Your task to perform on an android device: read, delete, or share a saved page in the chrome app Image 0: 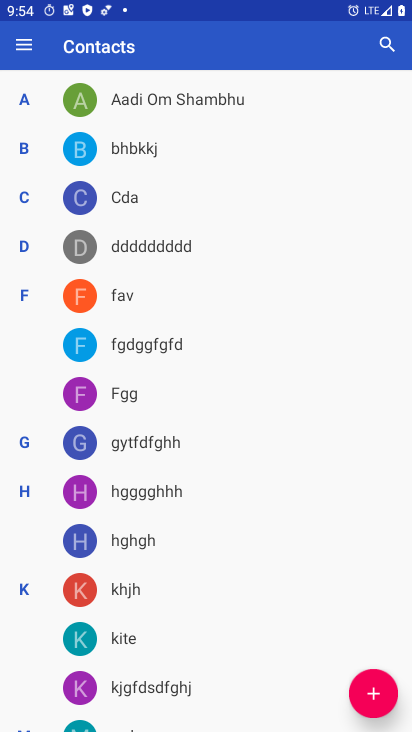
Step 0: press home button
Your task to perform on an android device: read, delete, or share a saved page in the chrome app Image 1: 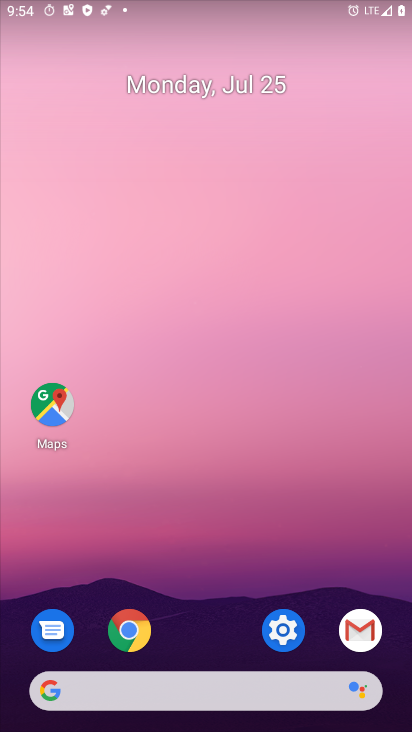
Step 1: click (138, 625)
Your task to perform on an android device: read, delete, or share a saved page in the chrome app Image 2: 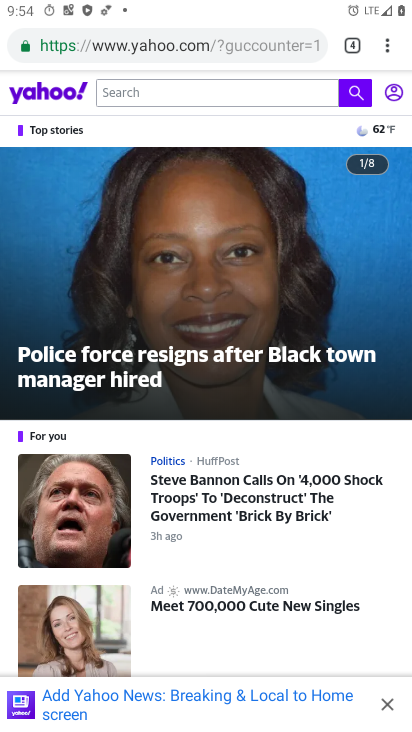
Step 2: click (382, 53)
Your task to perform on an android device: read, delete, or share a saved page in the chrome app Image 3: 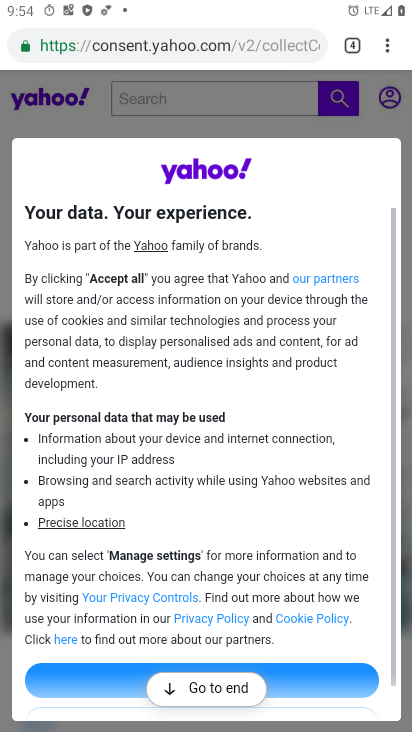
Step 3: click (387, 47)
Your task to perform on an android device: read, delete, or share a saved page in the chrome app Image 4: 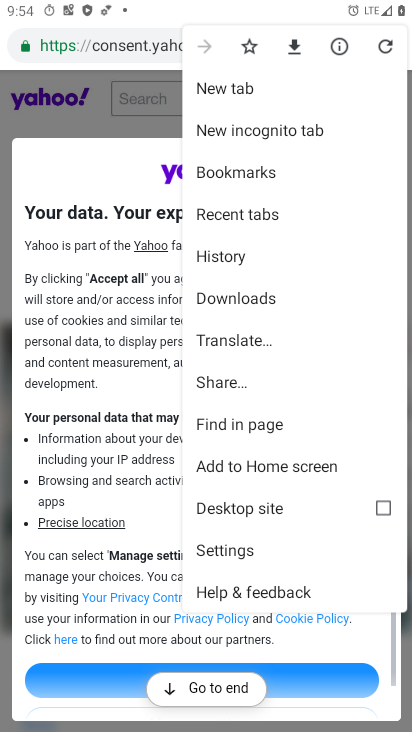
Step 4: click (241, 381)
Your task to perform on an android device: read, delete, or share a saved page in the chrome app Image 5: 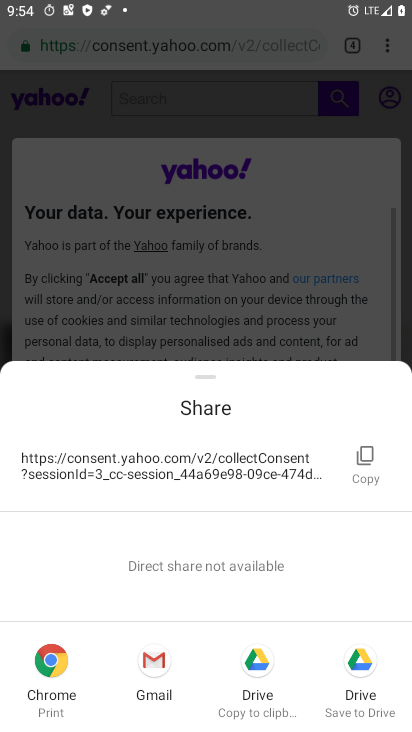
Step 5: task complete